Your task to perform on an android device: Open the stopwatch Image 0: 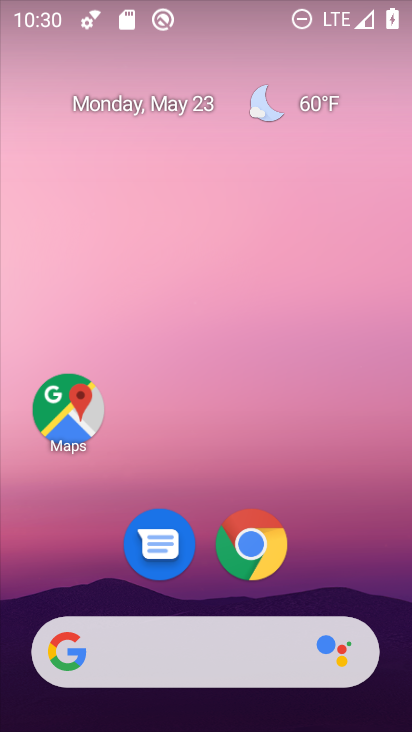
Step 0: drag from (314, 495) to (168, 193)
Your task to perform on an android device: Open the stopwatch Image 1: 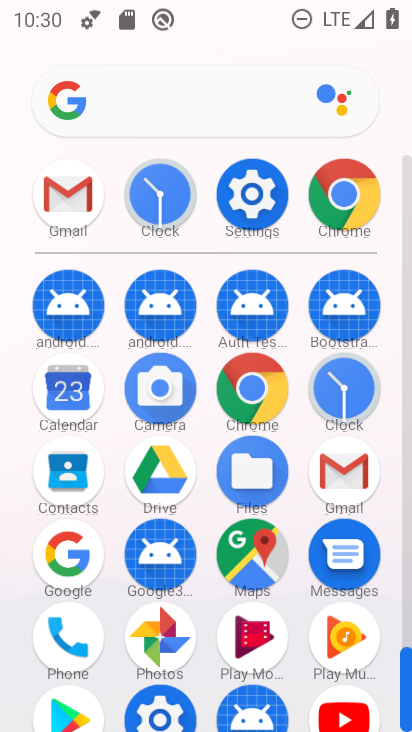
Step 1: click (342, 398)
Your task to perform on an android device: Open the stopwatch Image 2: 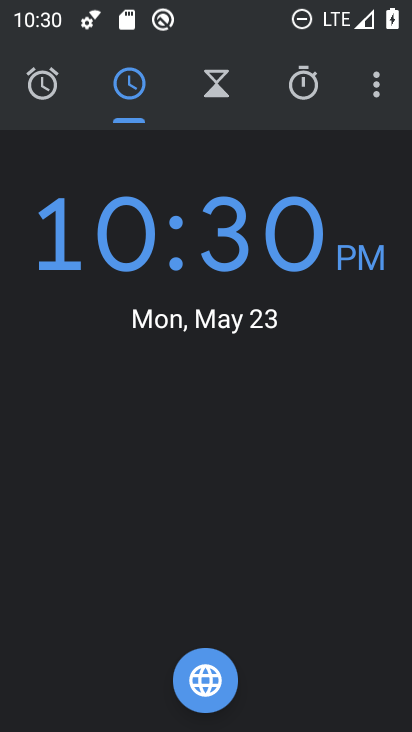
Step 2: click (308, 86)
Your task to perform on an android device: Open the stopwatch Image 3: 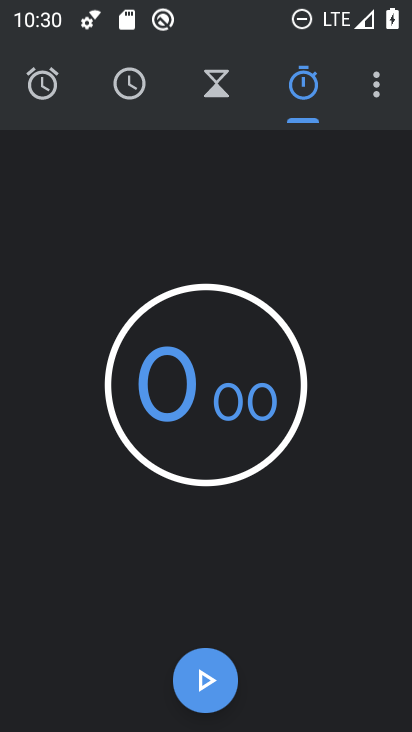
Step 3: task complete